Your task to perform on an android device: delete browsing data in the chrome app Image 0: 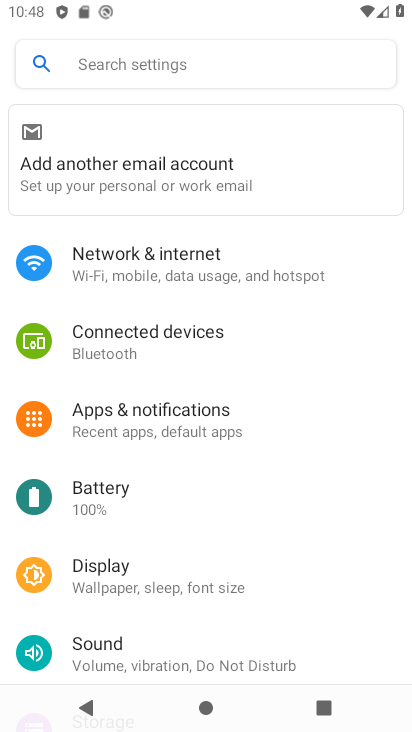
Step 0: press home button
Your task to perform on an android device: delete browsing data in the chrome app Image 1: 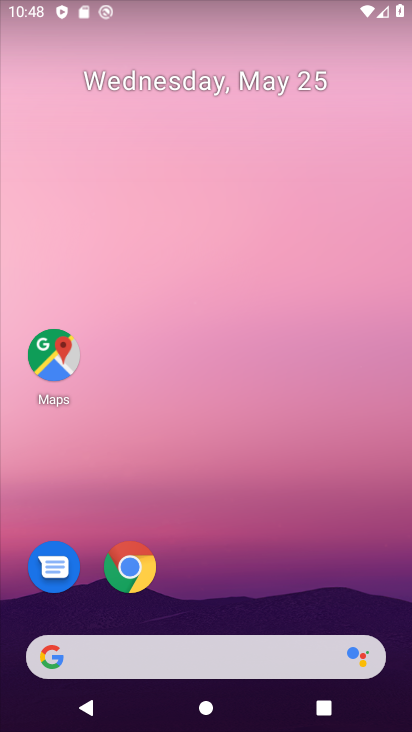
Step 1: drag from (292, 595) to (202, 19)
Your task to perform on an android device: delete browsing data in the chrome app Image 2: 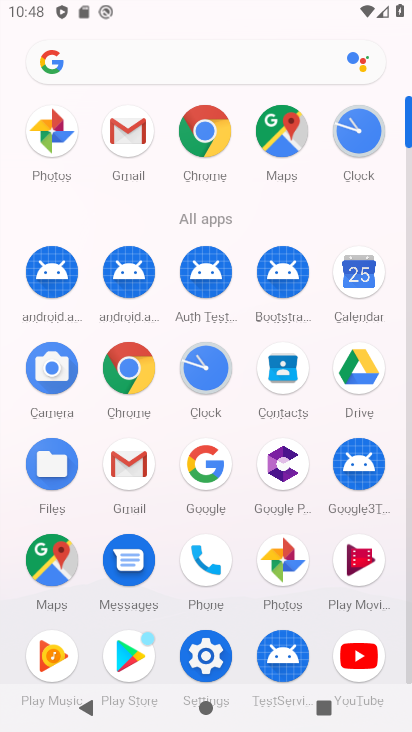
Step 2: click (131, 374)
Your task to perform on an android device: delete browsing data in the chrome app Image 3: 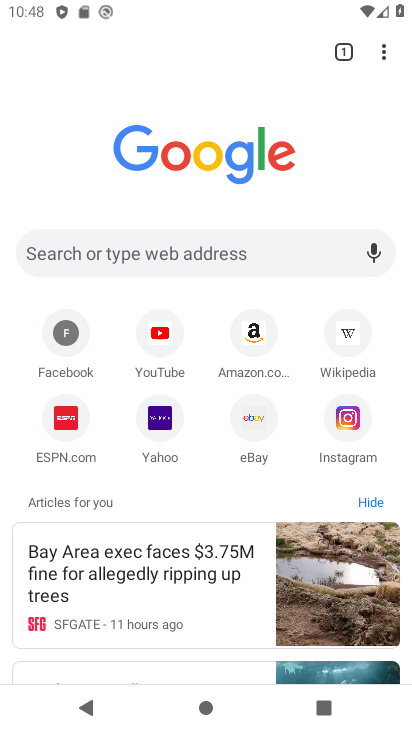
Step 3: click (381, 57)
Your task to perform on an android device: delete browsing data in the chrome app Image 4: 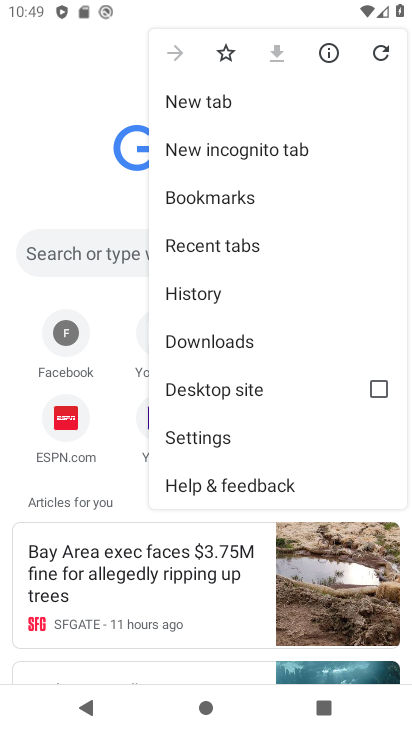
Step 4: click (218, 292)
Your task to perform on an android device: delete browsing data in the chrome app Image 5: 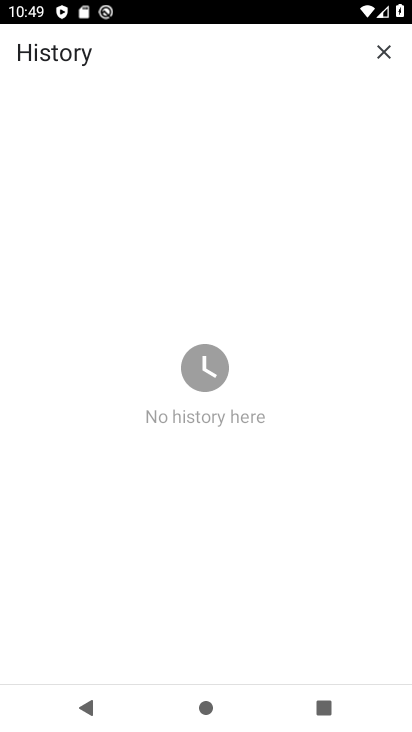
Step 5: task complete